Your task to perform on an android device: search for starred emails in the gmail app Image 0: 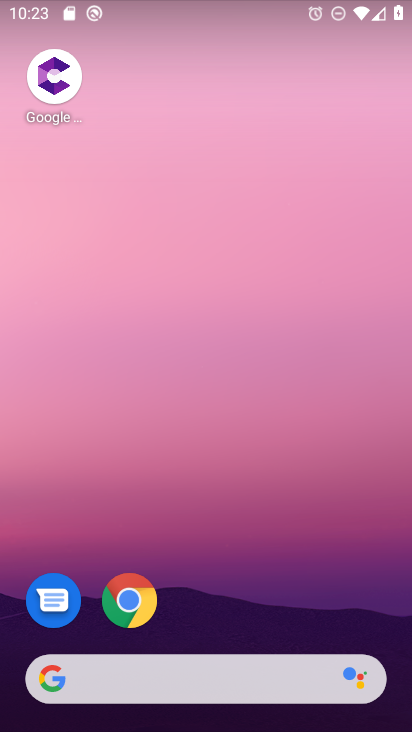
Step 0: click (394, 652)
Your task to perform on an android device: search for starred emails in the gmail app Image 1: 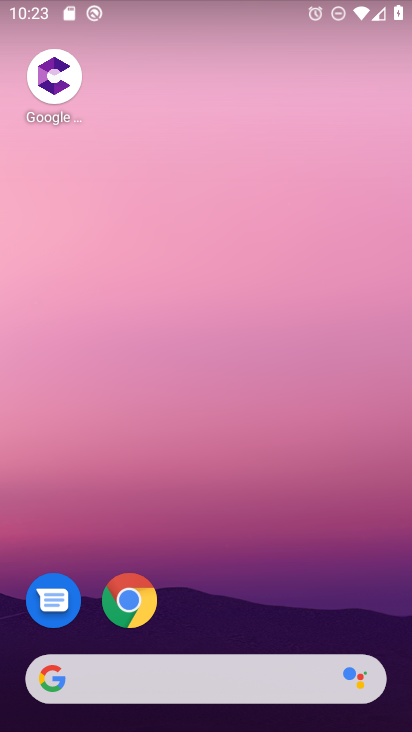
Step 1: drag from (377, 523) to (230, 99)
Your task to perform on an android device: search for starred emails in the gmail app Image 2: 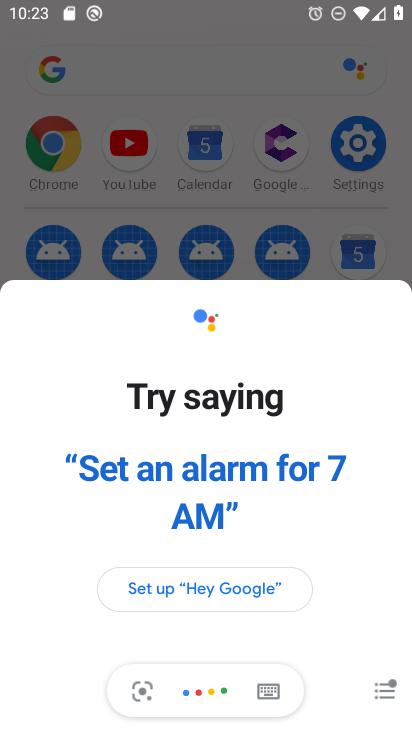
Step 2: press home button
Your task to perform on an android device: search for starred emails in the gmail app Image 3: 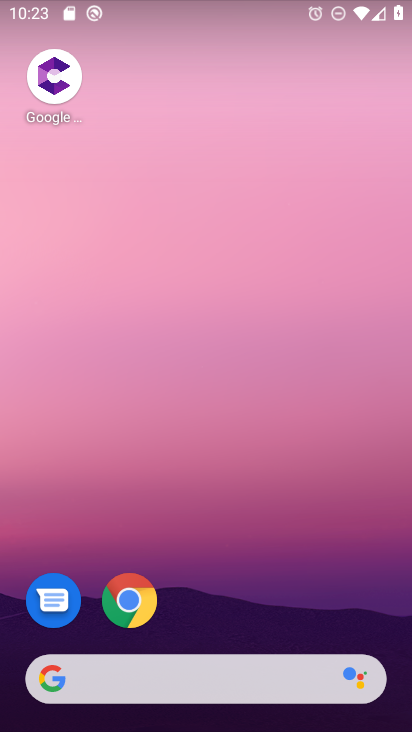
Step 3: drag from (387, 632) to (388, 594)
Your task to perform on an android device: search for starred emails in the gmail app Image 4: 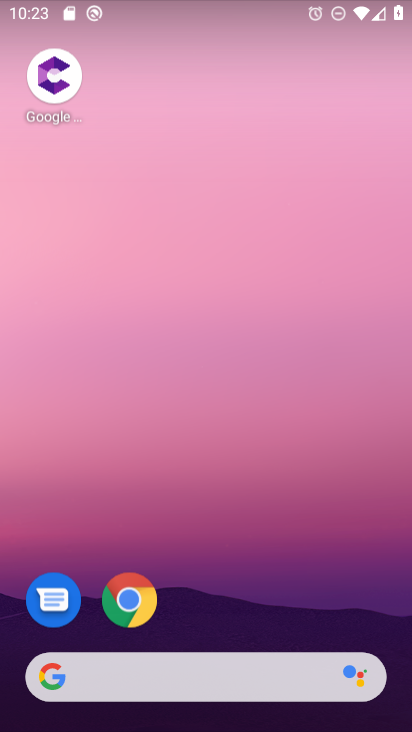
Step 4: click (292, 87)
Your task to perform on an android device: search for starred emails in the gmail app Image 5: 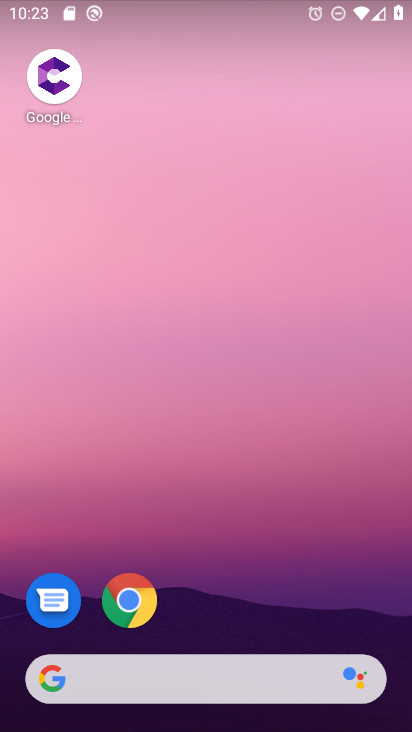
Step 5: click (404, 656)
Your task to perform on an android device: search for starred emails in the gmail app Image 6: 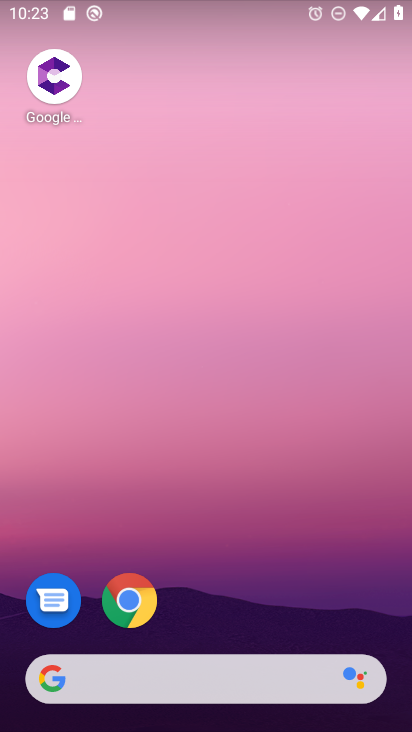
Step 6: drag from (386, 371) to (326, 34)
Your task to perform on an android device: search for starred emails in the gmail app Image 7: 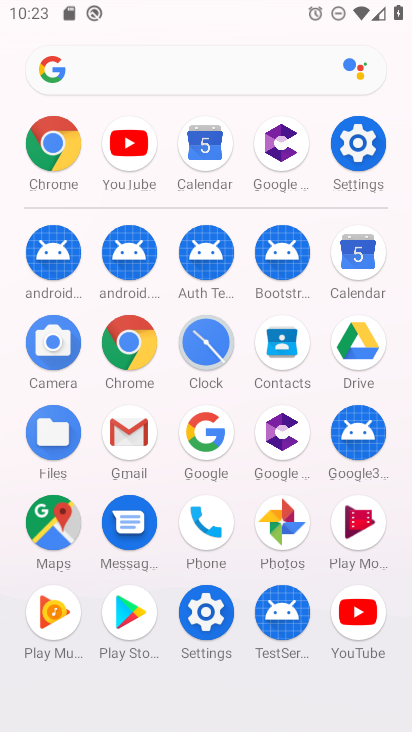
Step 7: click (138, 441)
Your task to perform on an android device: search for starred emails in the gmail app Image 8: 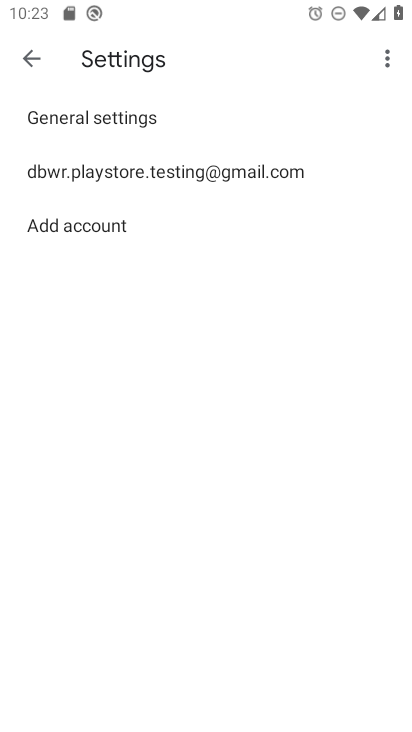
Step 8: press back button
Your task to perform on an android device: search for starred emails in the gmail app Image 9: 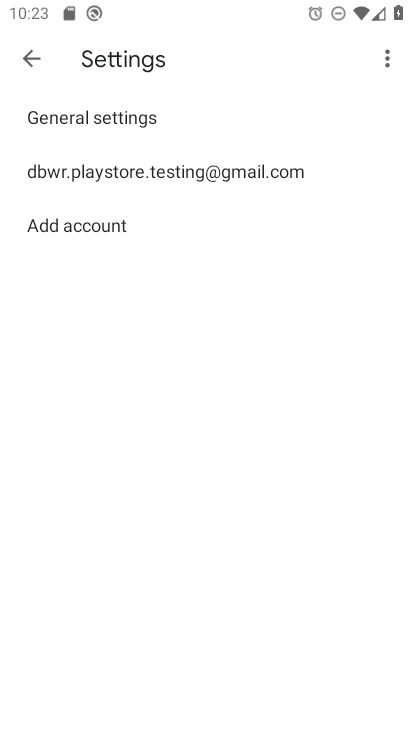
Step 9: press back button
Your task to perform on an android device: search for starred emails in the gmail app Image 10: 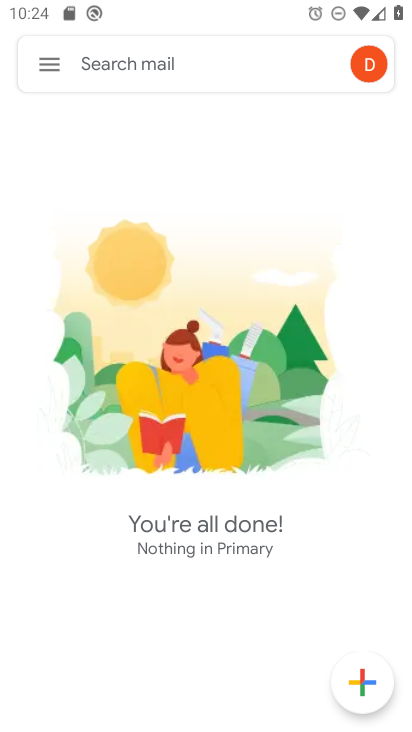
Step 10: click (47, 70)
Your task to perform on an android device: search for starred emails in the gmail app Image 11: 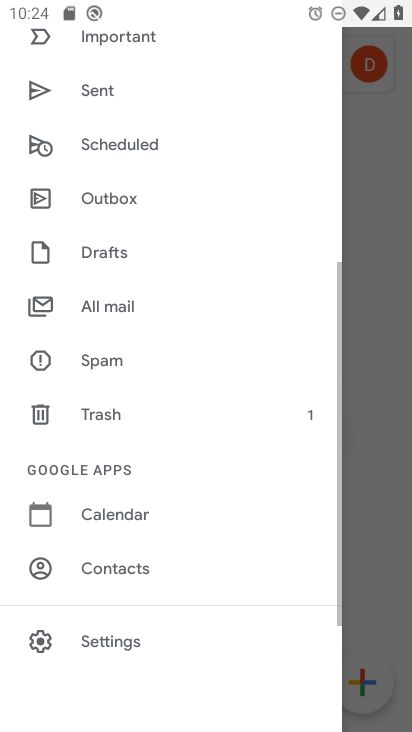
Step 11: drag from (151, 124) to (188, 642)
Your task to perform on an android device: search for starred emails in the gmail app Image 12: 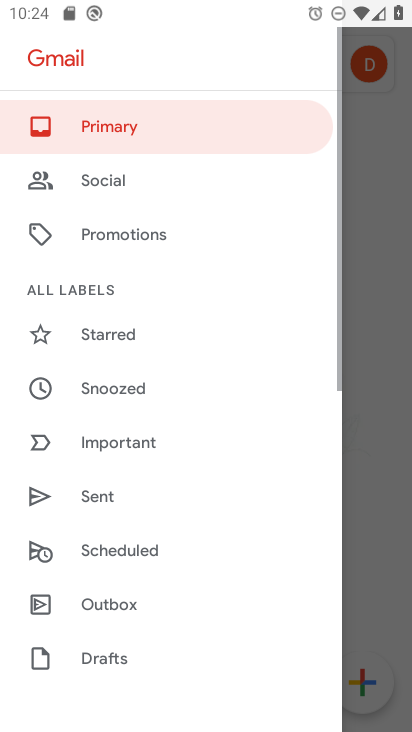
Step 12: click (127, 347)
Your task to perform on an android device: search for starred emails in the gmail app Image 13: 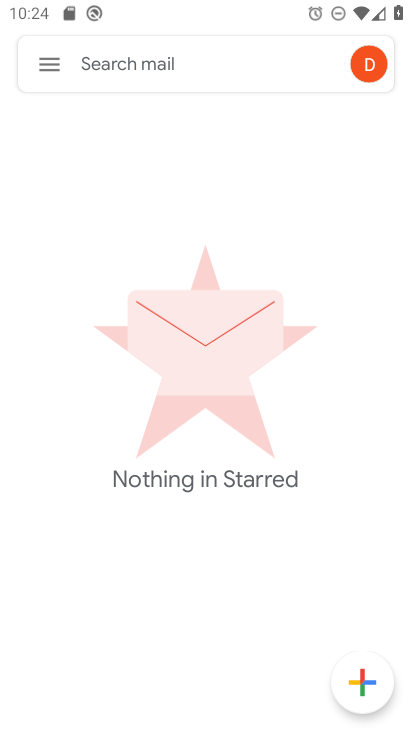
Step 13: task complete